Your task to perform on an android device: change the clock style Image 0: 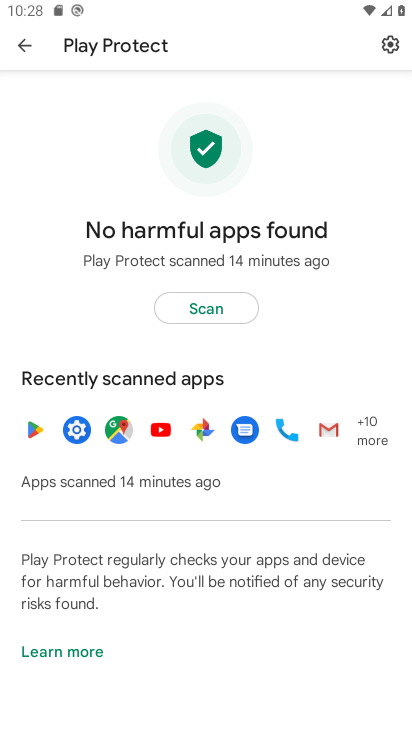
Step 0: click (32, 41)
Your task to perform on an android device: change the clock style Image 1: 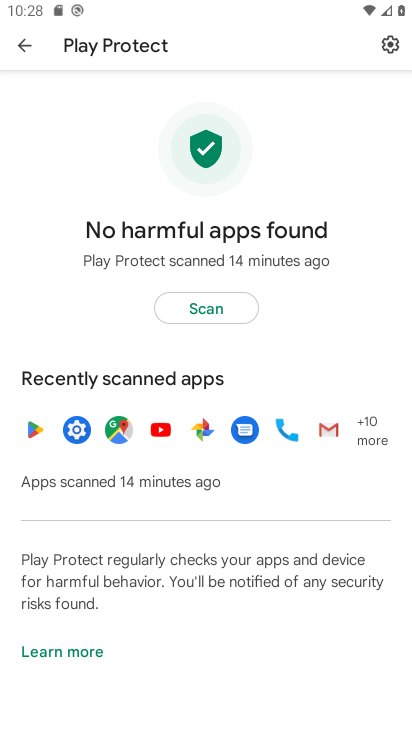
Step 1: click (32, 41)
Your task to perform on an android device: change the clock style Image 2: 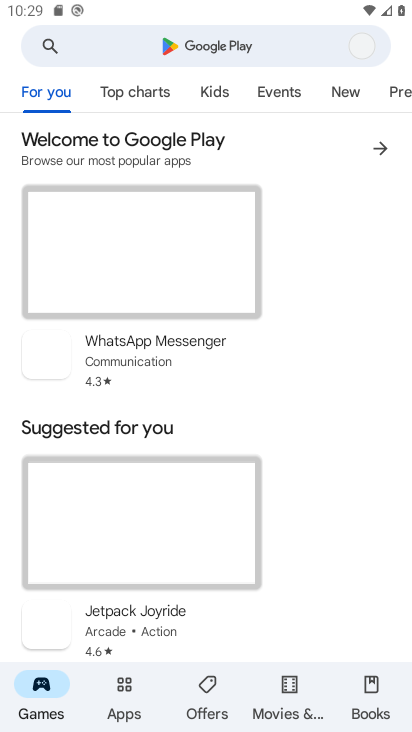
Step 2: press back button
Your task to perform on an android device: change the clock style Image 3: 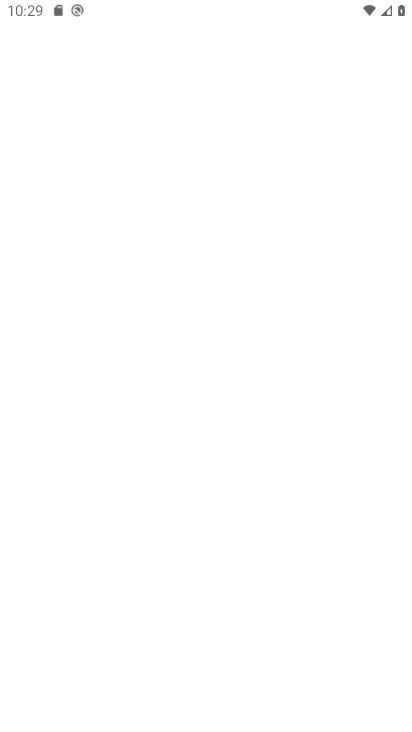
Step 3: press back button
Your task to perform on an android device: change the clock style Image 4: 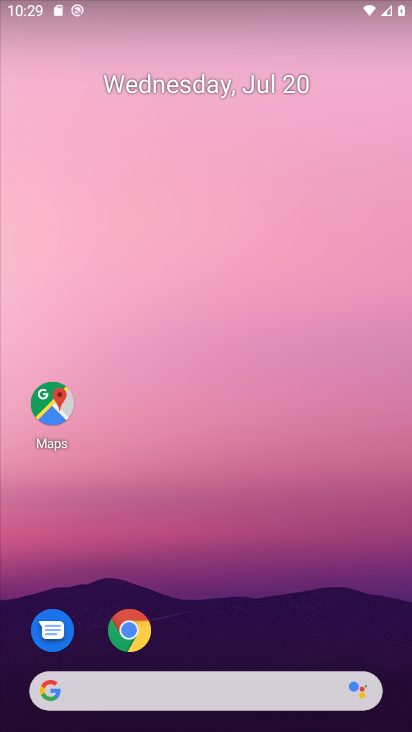
Step 4: drag from (279, 625) to (248, 152)
Your task to perform on an android device: change the clock style Image 5: 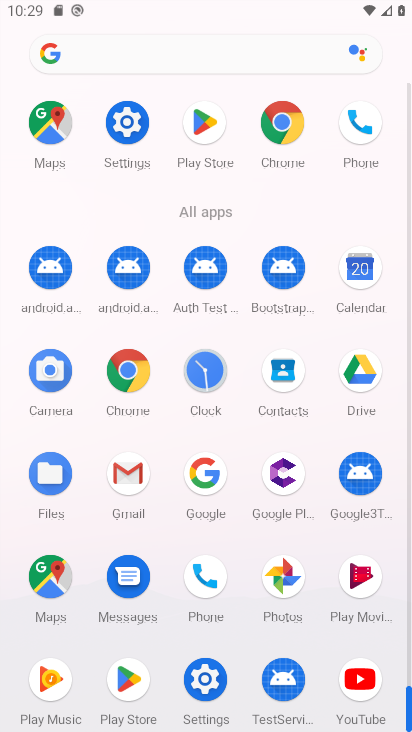
Step 5: click (207, 382)
Your task to perform on an android device: change the clock style Image 6: 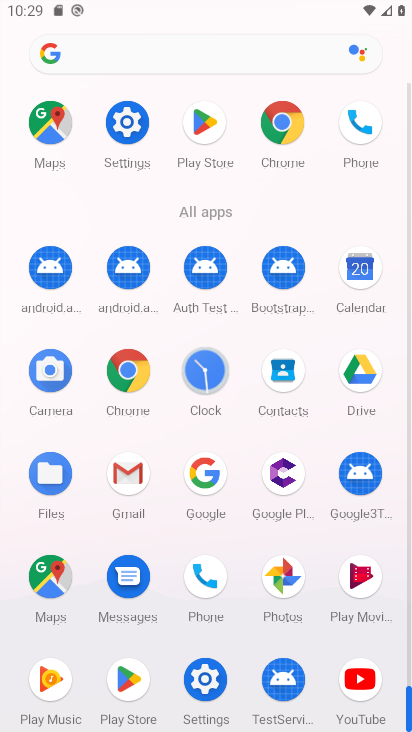
Step 6: click (212, 383)
Your task to perform on an android device: change the clock style Image 7: 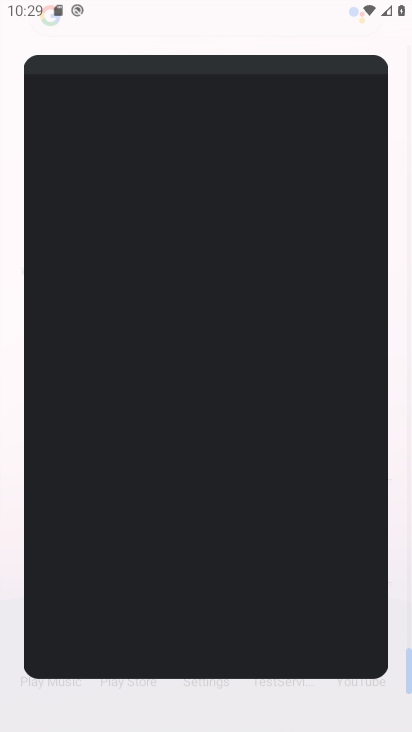
Step 7: click (215, 382)
Your task to perform on an android device: change the clock style Image 8: 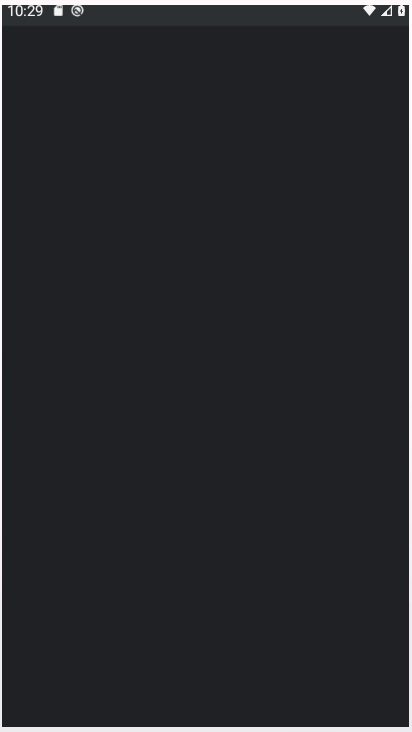
Step 8: click (215, 382)
Your task to perform on an android device: change the clock style Image 9: 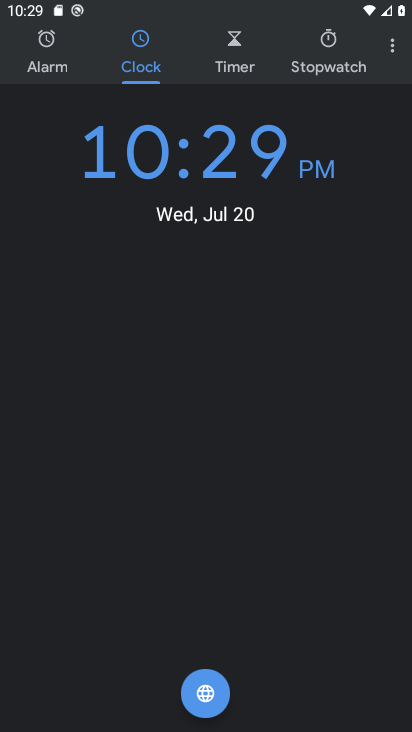
Step 9: drag from (397, 46) to (298, 95)
Your task to perform on an android device: change the clock style Image 10: 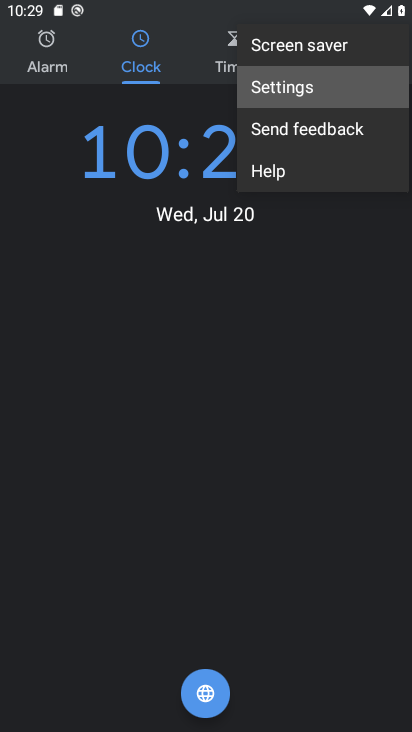
Step 10: click (301, 93)
Your task to perform on an android device: change the clock style Image 11: 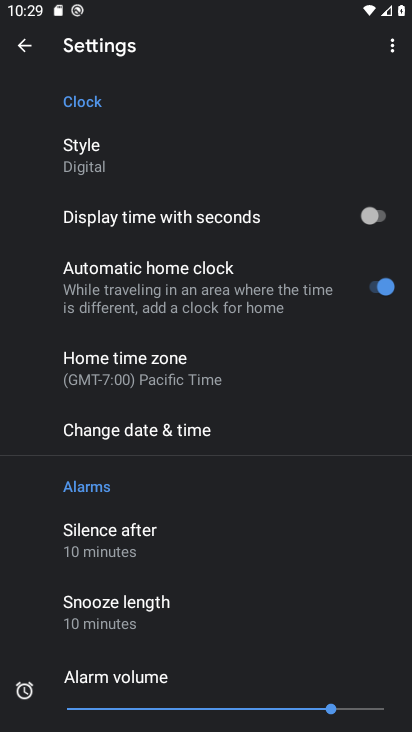
Step 11: click (78, 149)
Your task to perform on an android device: change the clock style Image 12: 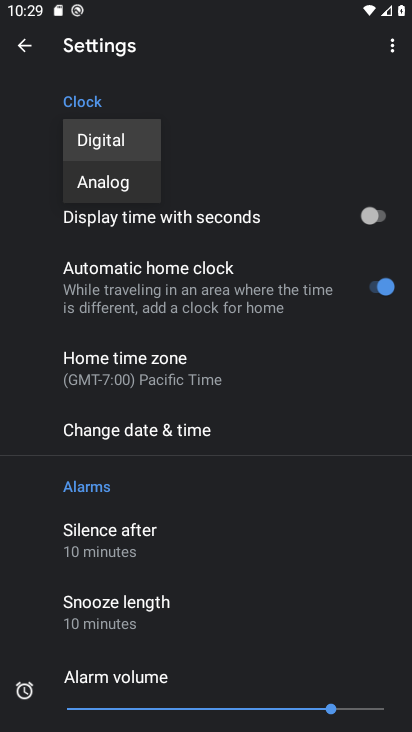
Step 12: click (112, 183)
Your task to perform on an android device: change the clock style Image 13: 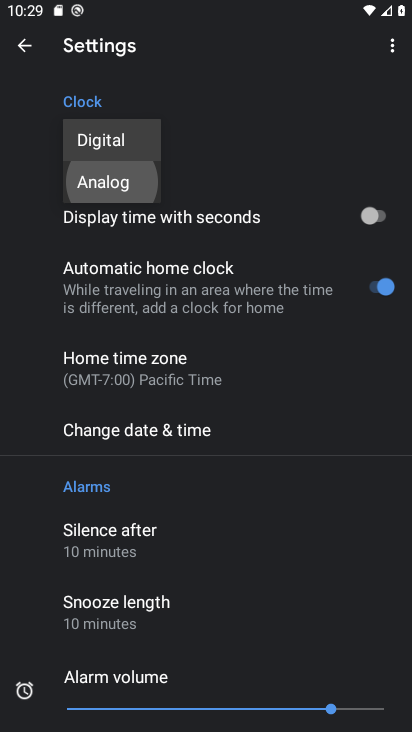
Step 13: click (112, 183)
Your task to perform on an android device: change the clock style Image 14: 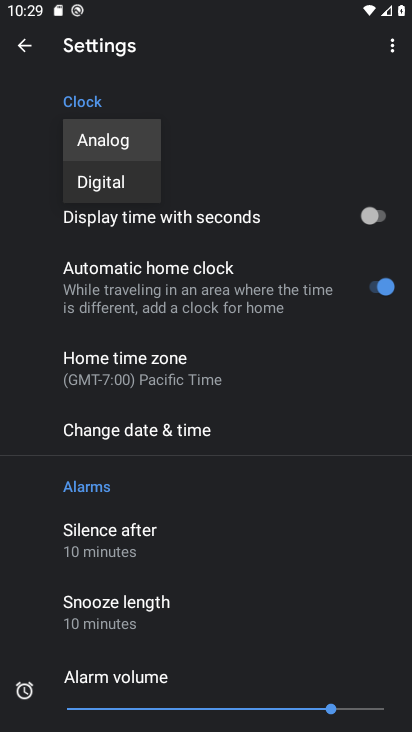
Step 14: task complete